Your task to perform on an android device: Open ESPN.com Image 0: 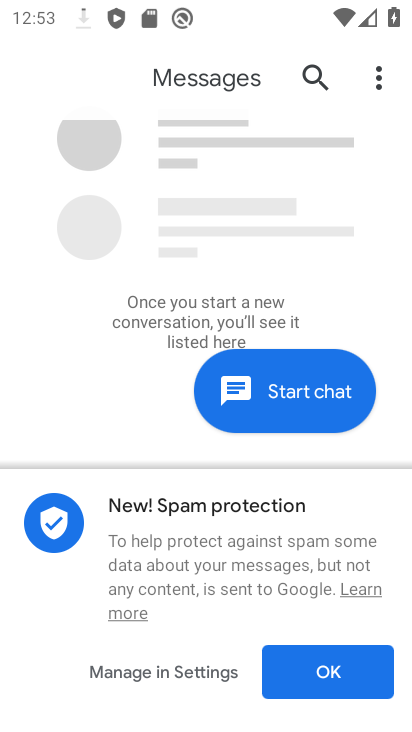
Step 0: press home button
Your task to perform on an android device: Open ESPN.com Image 1: 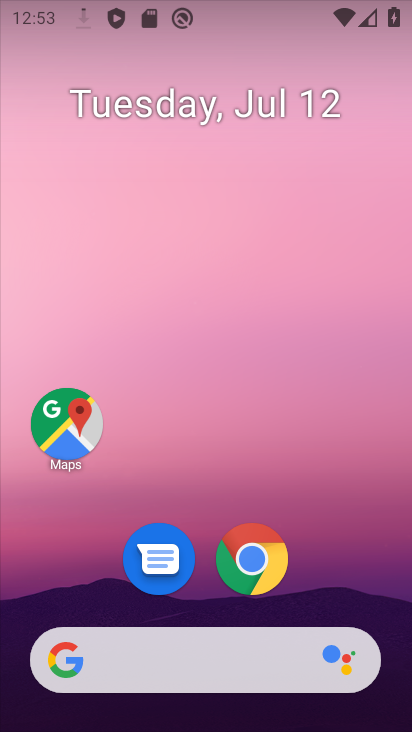
Step 1: drag from (355, 560) to (375, 44)
Your task to perform on an android device: Open ESPN.com Image 2: 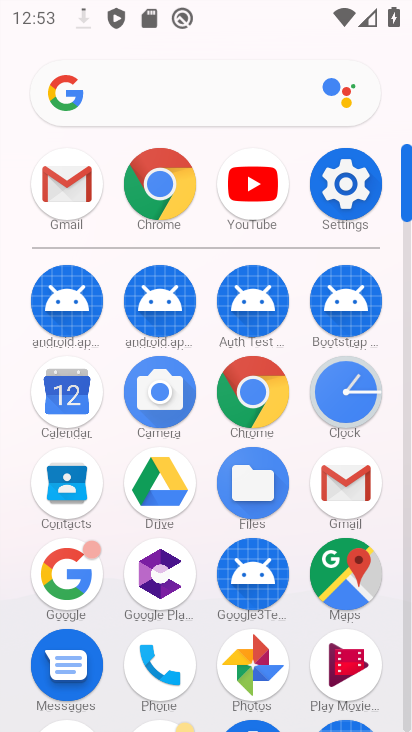
Step 2: click (151, 192)
Your task to perform on an android device: Open ESPN.com Image 3: 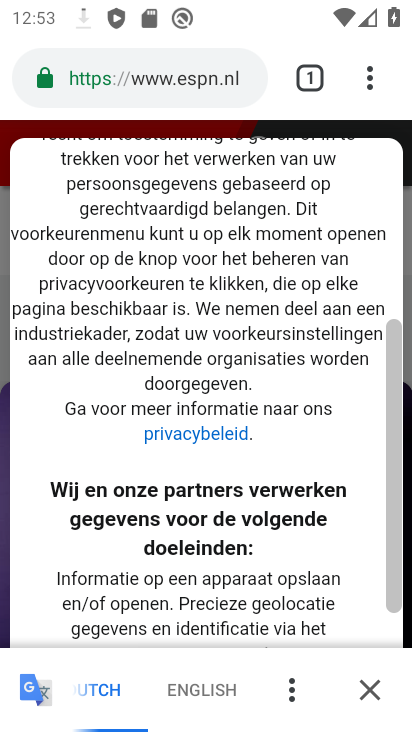
Step 3: click (191, 76)
Your task to perform on an android device: Open ESPN.com Image 4: 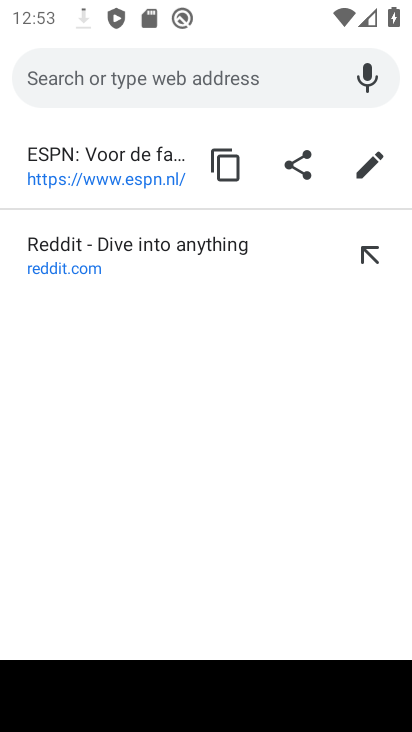
Step 4: type "espn.com"
Your task to perform on an android device: Open ESPN.com Image 5: 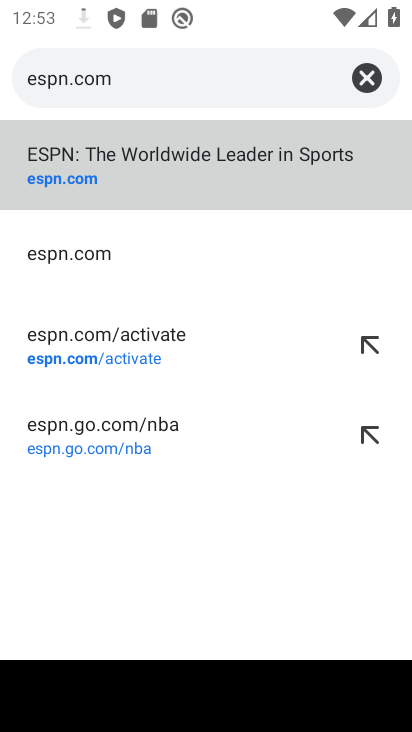
Step 5: click (202, 181)
Your task to perform on an android device: Open ESPN.com Image 6: 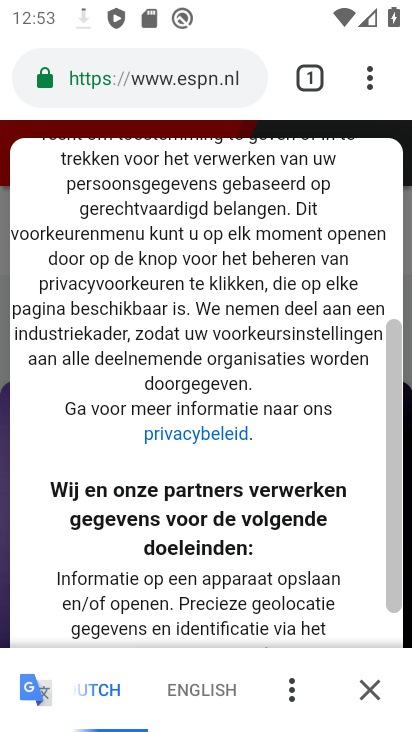
Step 6: task complete